Your task to perform on an android device: turn on airplane mode Image 0: 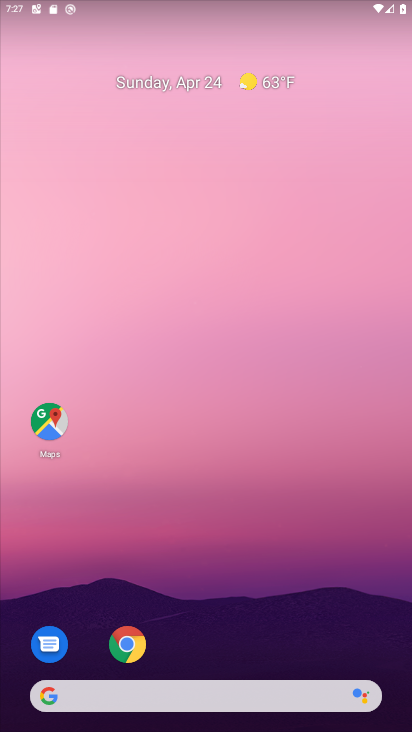
Step 0: drag from (219, 586) to (273, 98)
Your task to perform on an android device: turn on airplane mode Image 1: 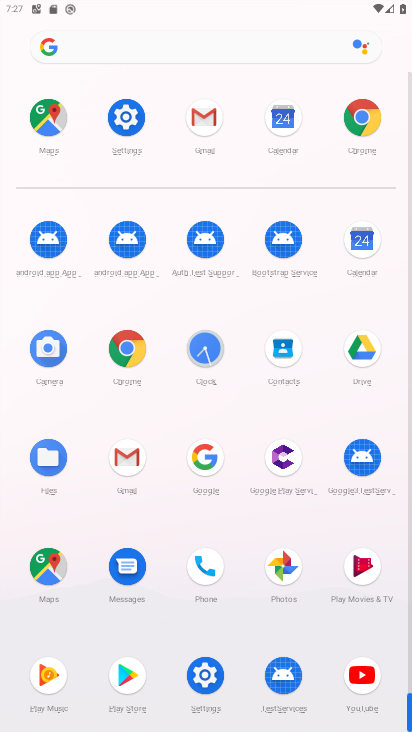
Step 1: click (127, 107)
Your task to perform on an android device: turn on airplane mode Image 2: 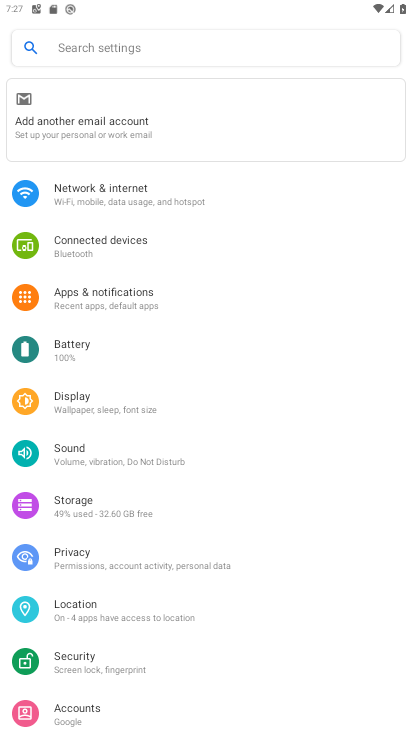
Step 2: drag from (174, 12) to (174, 683)
Your task to perform on an android device: turn on airplane mode Image 3: 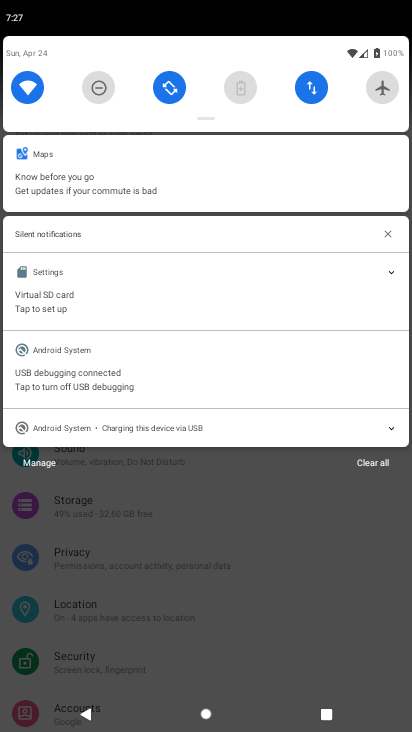
Step 3: click (379, 85)
Your task to perform on an android device: turn on airplane mode Image 4: 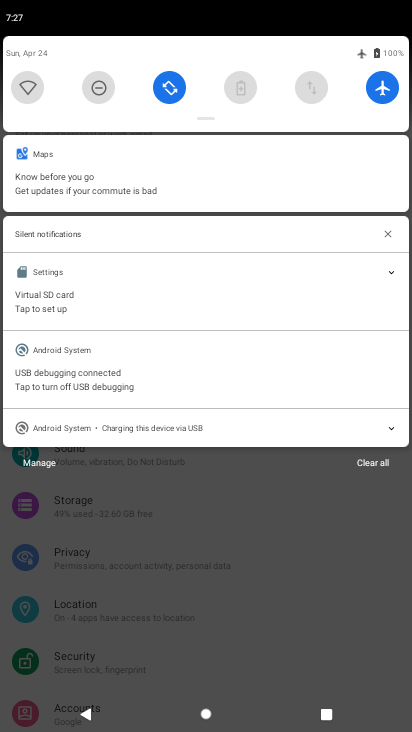
Step 4: task complete